Your task to perform on an android device: toggle pop-ups in chrome Image 0: 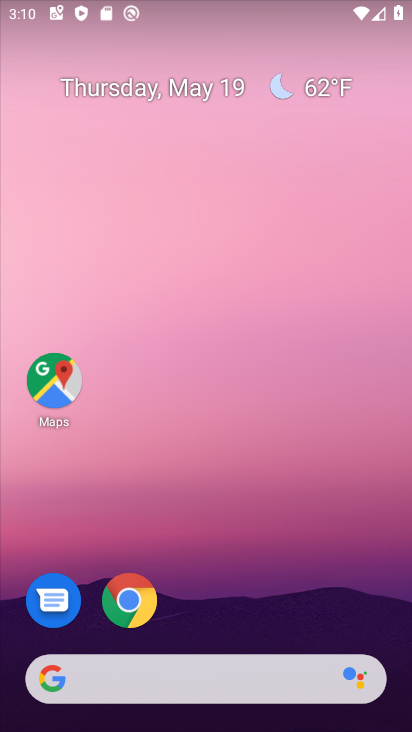
Step 0: press home button
Your task to perform on an android device: toggle pop-ups in chrome Image 1: 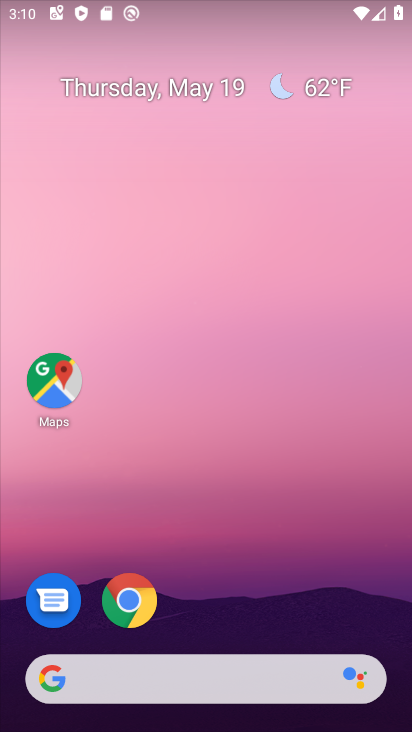
Step 1: click (126, 592)
Your task to perform on an android device: toggle pop-ups in chrome Image 2: 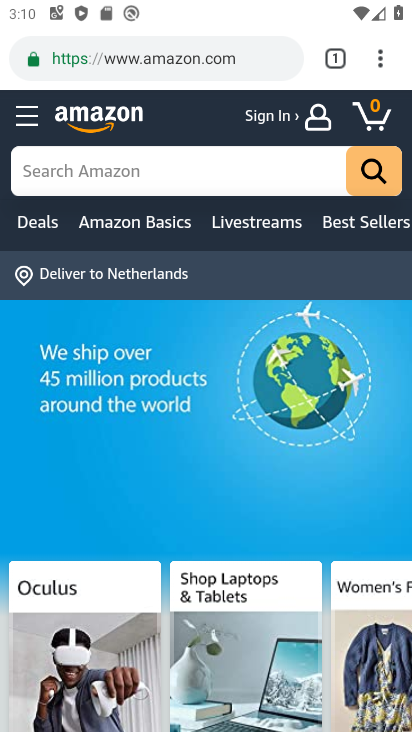
Step 2: click (383, 48)
Your task to perform on an android device: toggle pop-ups in chrome Image 3: 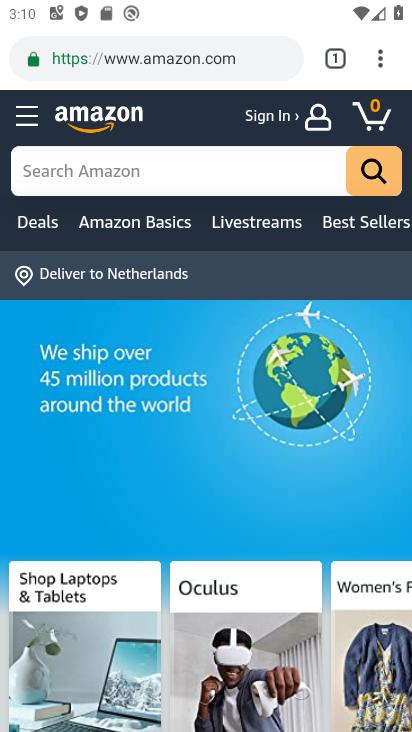
Step 3: click (380, 51)
Your task to perform on an android device: toggle pop-ups in chrome Image 4: 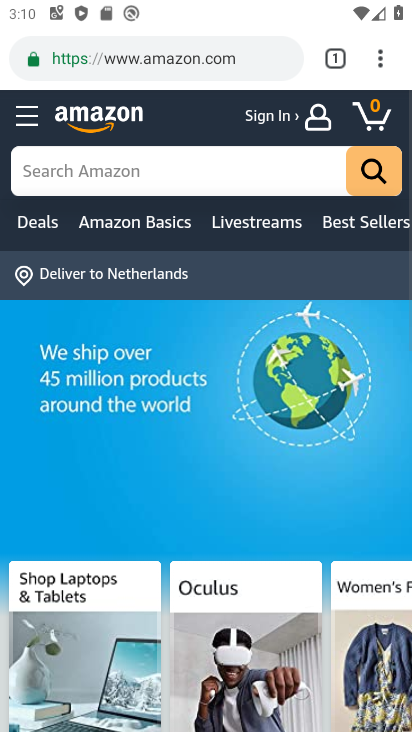
Step 4: click (375, 57)
Your task to perform on an android device: toggle pop-ups in chrome Image 5: 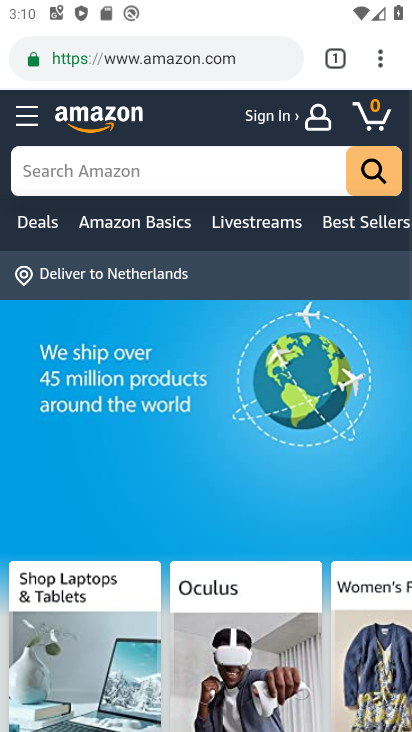
Step 5: click (384, 58)
Your task to perform on an android device: toggle pop-ups in chrome Image 6: 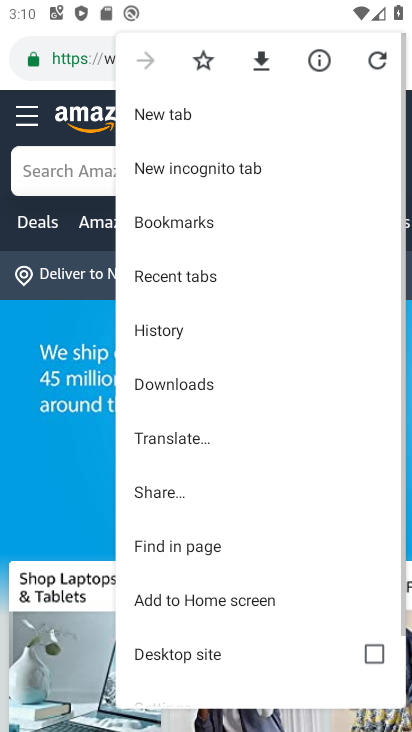
Step 6: drag from (157, 675) to (291, 220)
Your task to perform on an android device: toggle pop-ups in chrome Image 7: 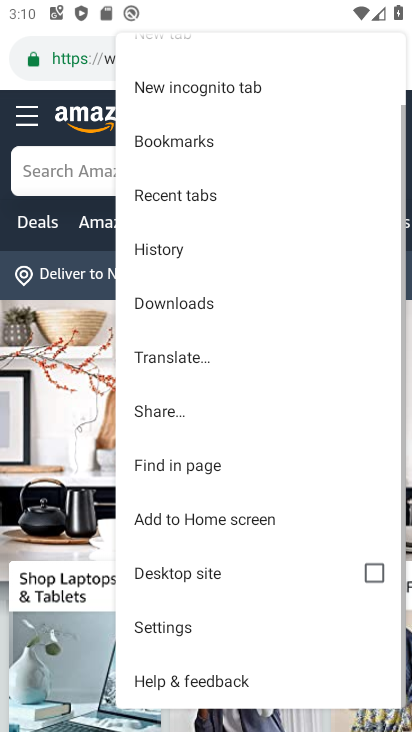
Step 7: click (172, 609)
Your task to perform on an android device: toggle pop-ups in chrome Image 8: 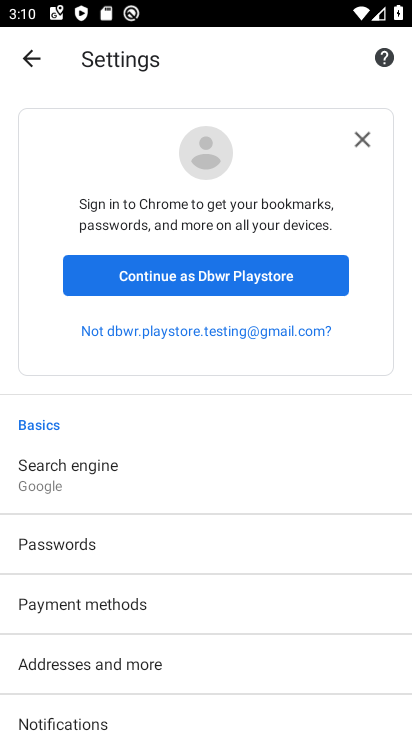
Step 8: drag from (23, 573) to (181, 296)
Your task to perform on an android device: toggle pop-ups in chrome Image 9: 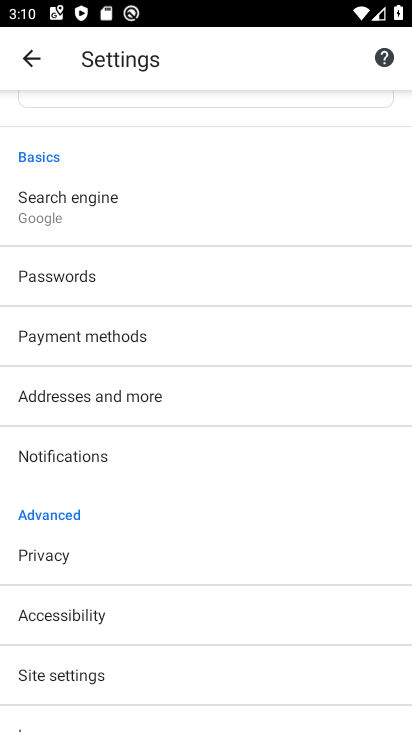
Step 9: click (71, 677)
Your task to perform on an android device: toggle pop-ups in chrome Image 10: 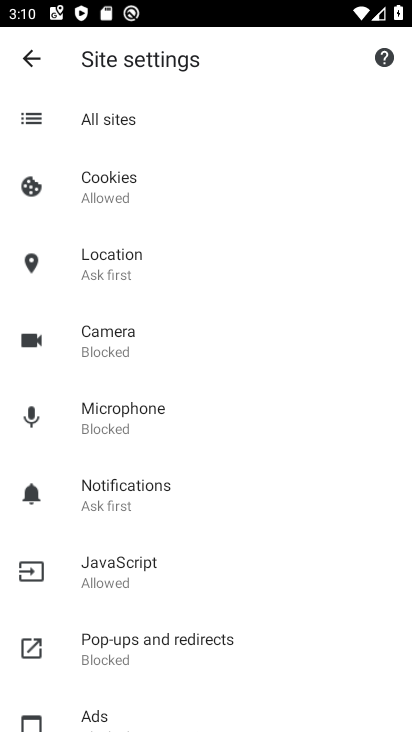
Step 10: click (87, 658)
Your task to perform on an android device: toggle pop-ups in chrome Image 11: 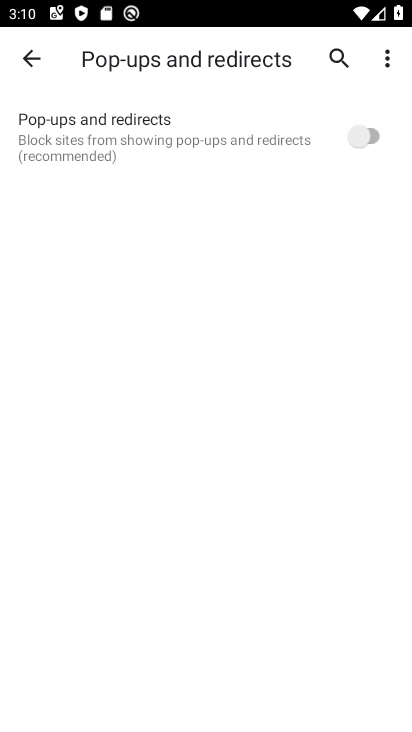
Step 11: click (363, 142)
Your task to perform on an android device: toggle pop-ups in chrome Image 12: 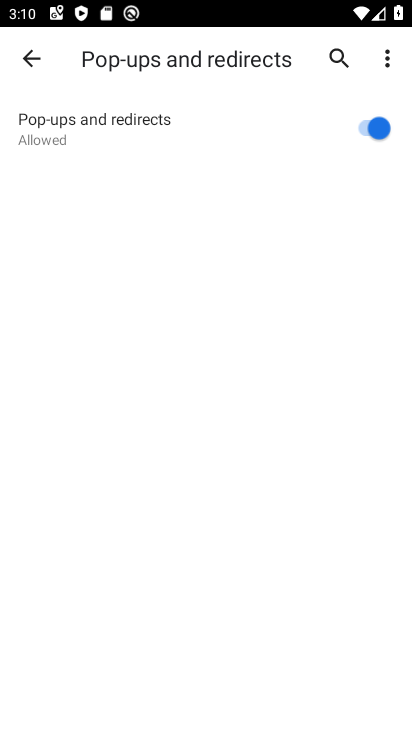
Step 12: task complete